Your task to perform on an android device: Search for flights from Mexico city to Boston Image 0: 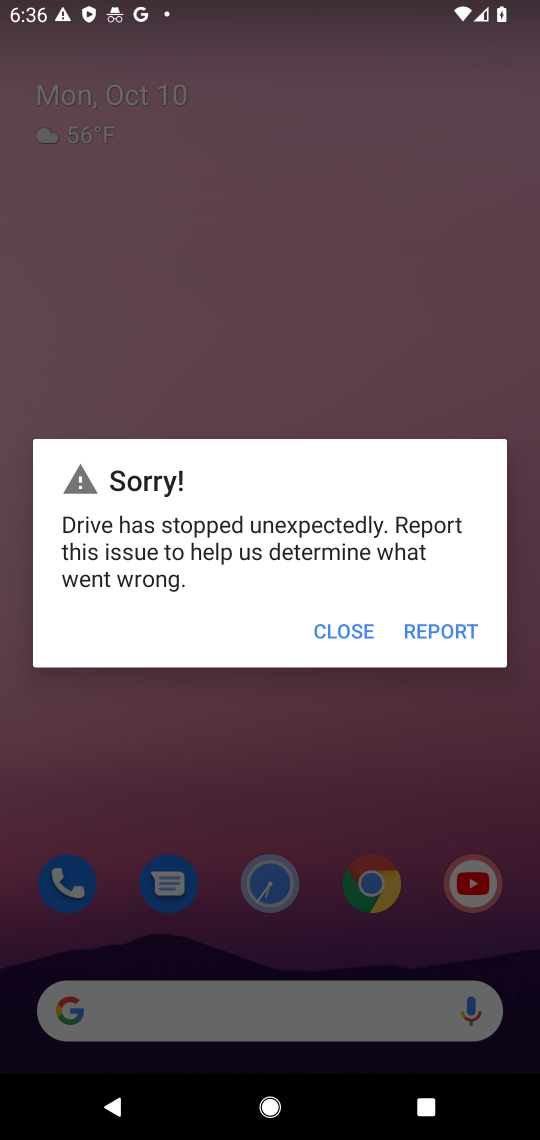
Step 0: press home button
Your task to perform on an android device: Search for flights from Mexico city to Boston Image 1: 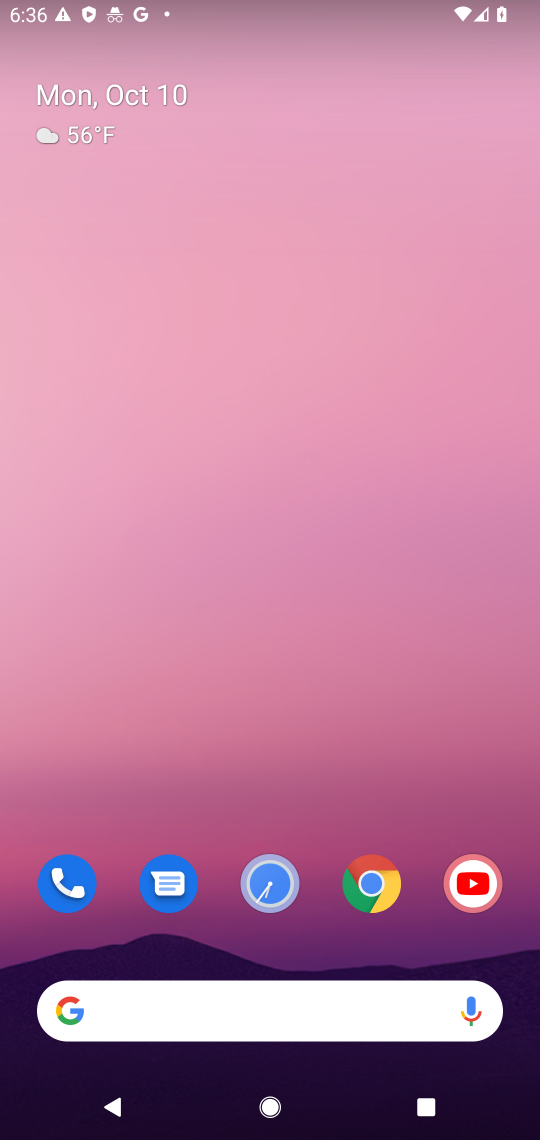
Step 1: drag from (251, 982) to (235, 458)
Your task to perform on an android device: Search for flights from Mexico city to Boston Image 2: 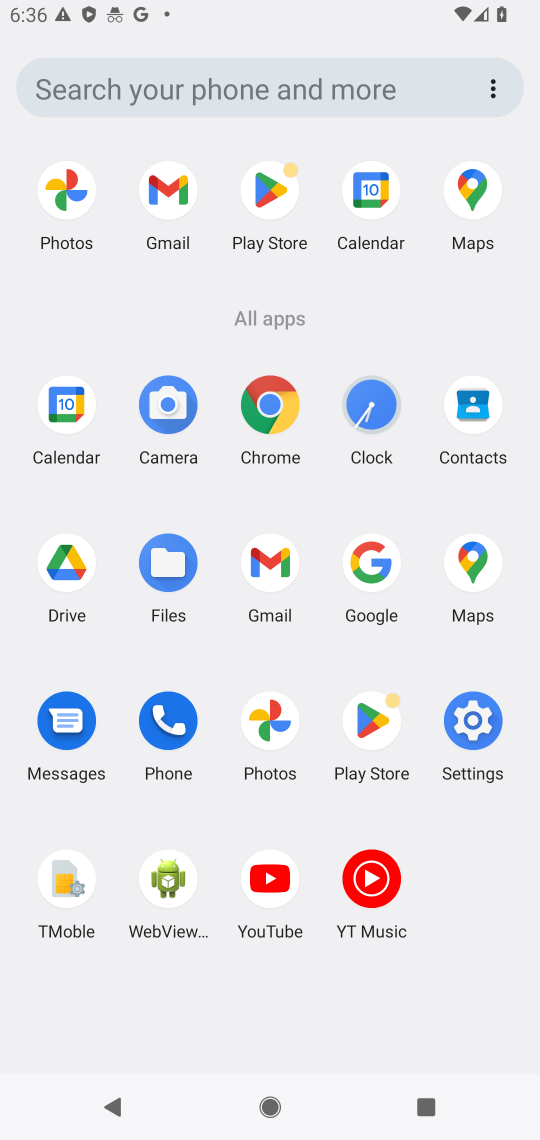
Step 2: click (370, 602)
Your task to perform on an android device: Search for flights from Mexico city to Boston Image 3: 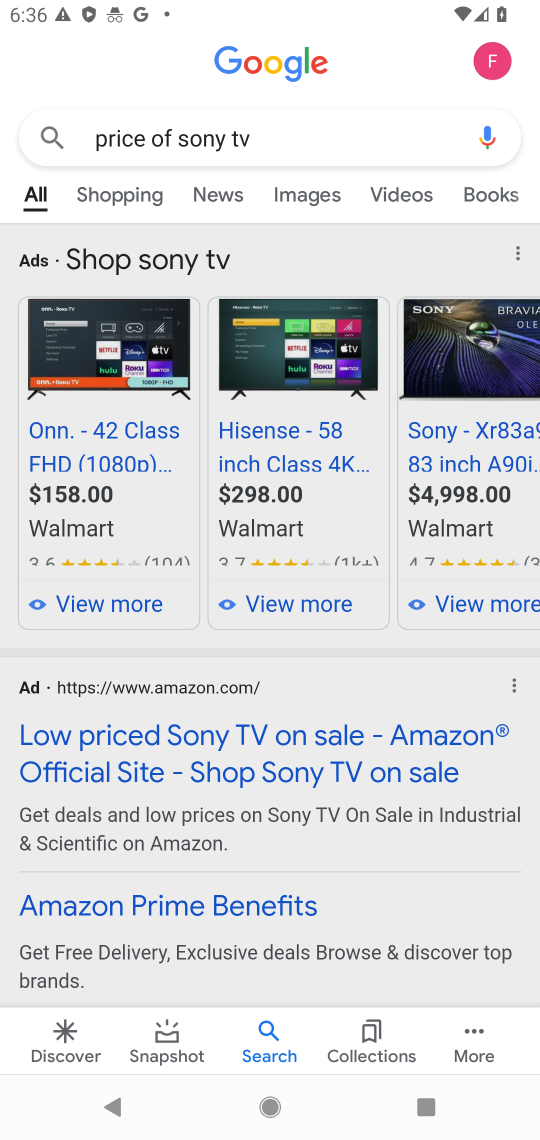
Step 3: click (374, 139)
Your task to perform on an android device: Search for flights from Mexico city to Boston Image 4: 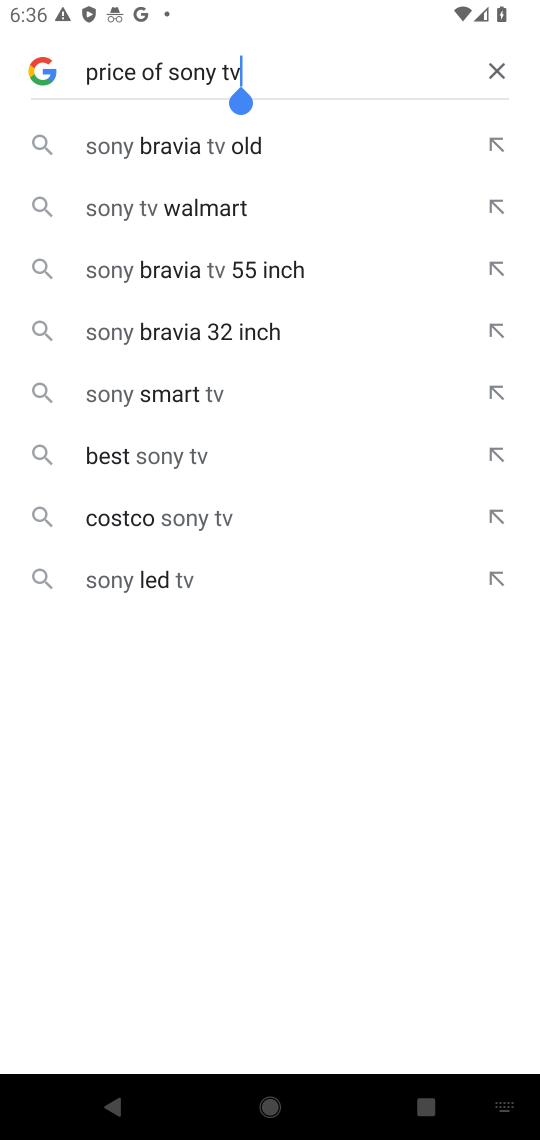
Step 4: click (507, 74)
Your task to perform on an android device: Search for flights from Mexico city to Boston Image 5: 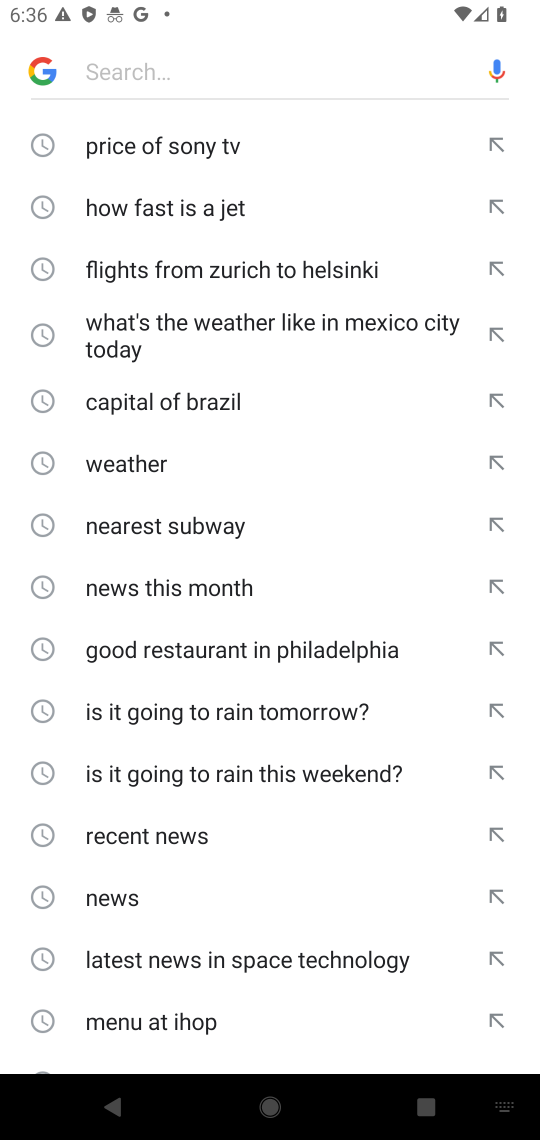
Step 5: type "flights from Mexico city to Boston"
Your task to perform on an android device: Search for flights from Mexico city to Boston Image 6: 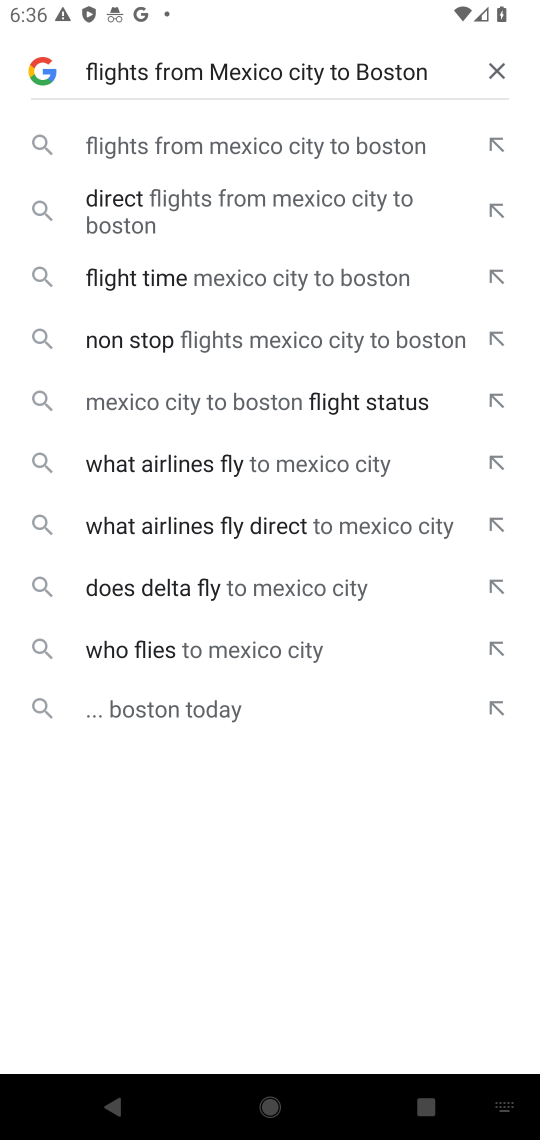
Step 6: click (387, 145)
Your task to perform on an android device: Search for flights from Mexico city to Boston Image 7: 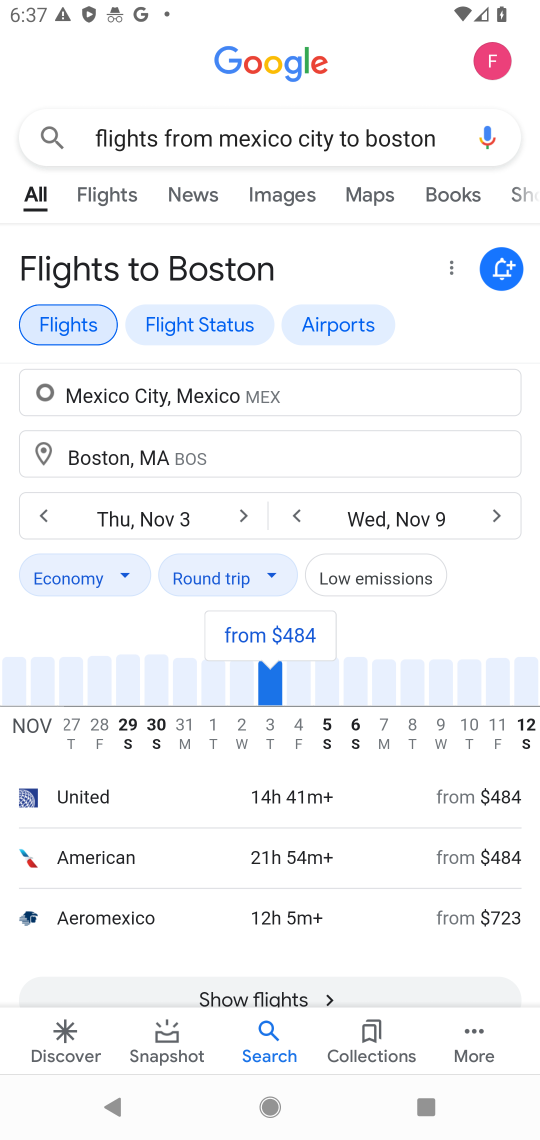
Step 7: task complete